Your task to perform on an android device: allow cookies in the chrome app Image 0: 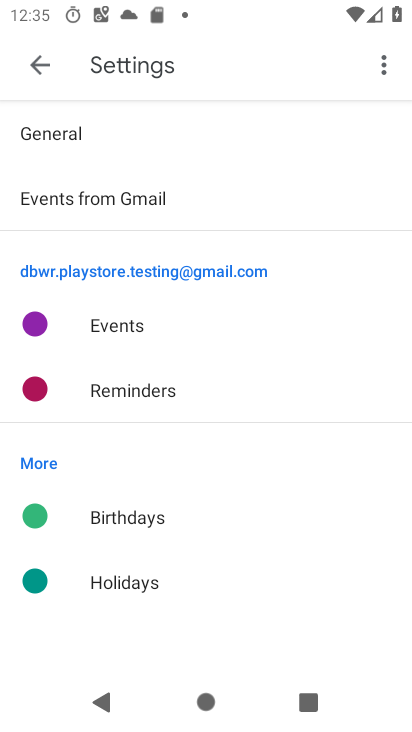
Step 0: press home button
Your task to perform on an android device: allow cookies in the chrome app Image 1: 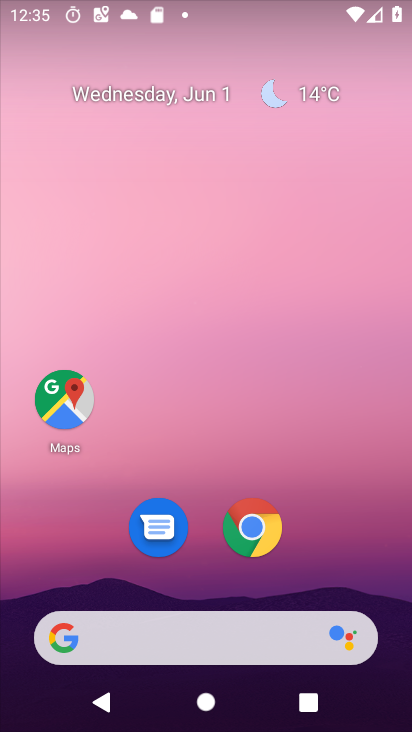
Step 1: click (253, 522)
Your task to perform on an android device: allow cookies in the chrome app Image 2: 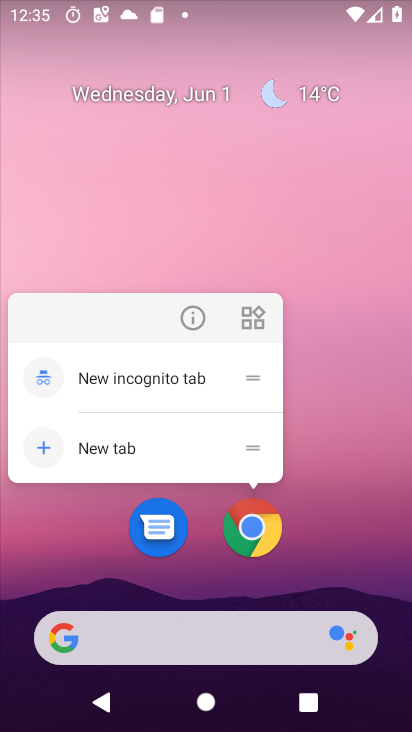
Step 2: click (252, 529)
Your task to perform on an android device: allow cookies in the chrome app Image 3: 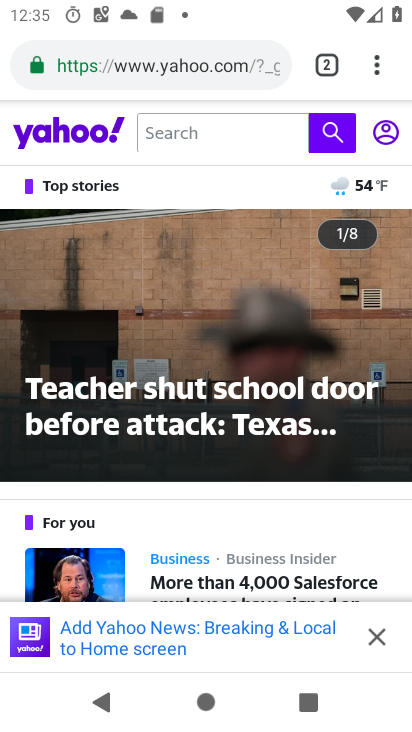
Step 3: click (380, 69)
Your task to perform on an android device: allow cookies in the chrome app Image 4: 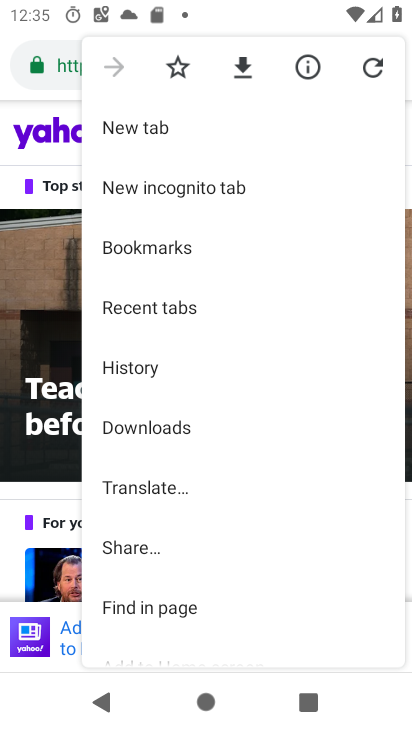
Step 4: drag from (225, 579) to (213, 260)
Your task to perform on an android device: allow cookies in the chrome app Image 5: 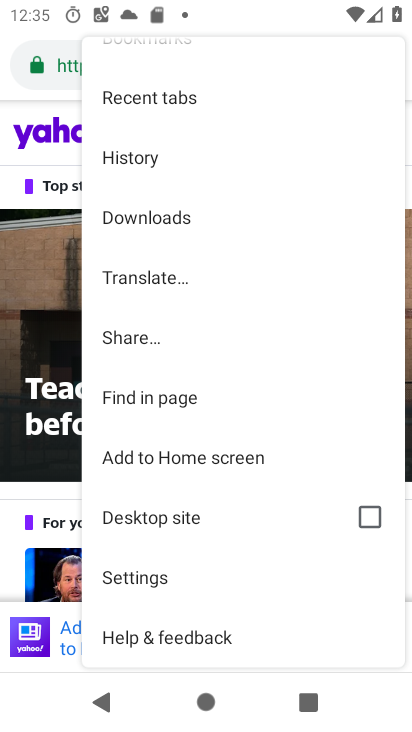
Step 5: click (137, 579)
Your task to perform on an android device: allow cookies in the chrome app Image 6: 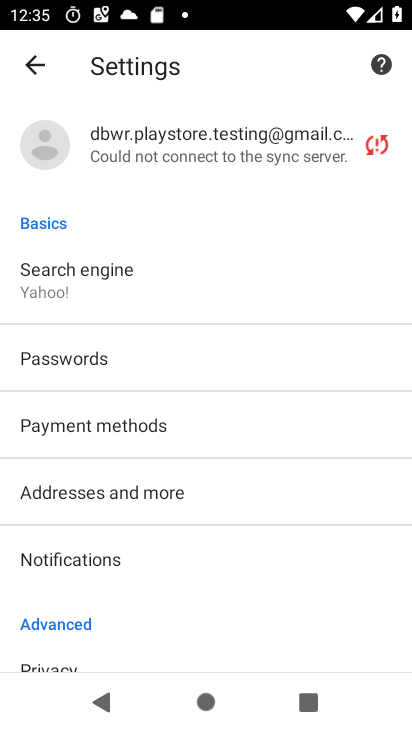
Step 6: drag from (179, 543) to (147, 165)
Your task to perform on an android device: allow cookies in the chrome app Image 7: 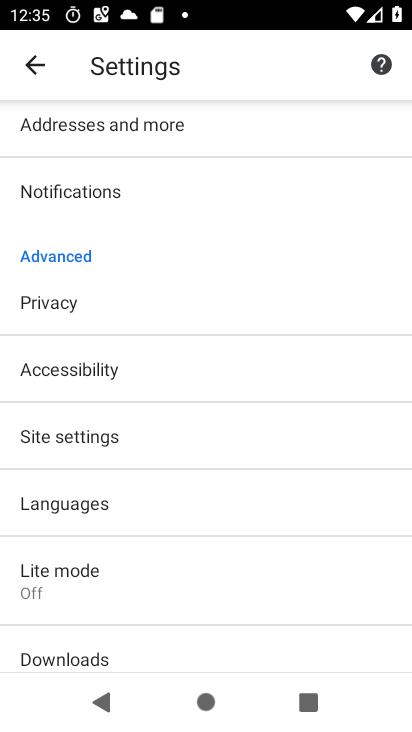
Step 7: click (46, 440)
Your task to perform on an android device: allow cookies in the chrome app Image 8: 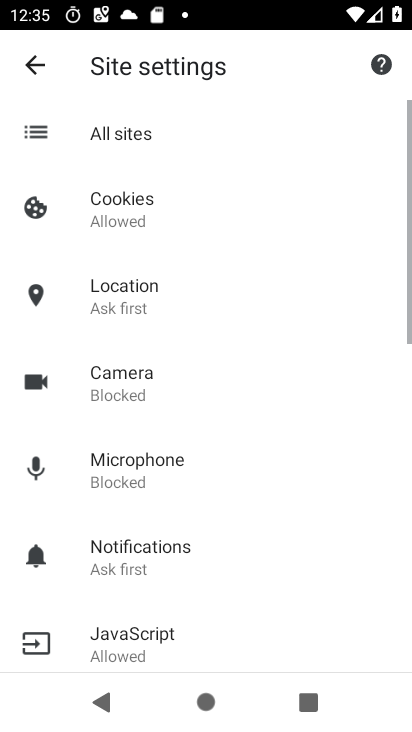
Step 8: click (114, 212)
Your task to perform on an android device: allow cookies in the chrome app Image 9: 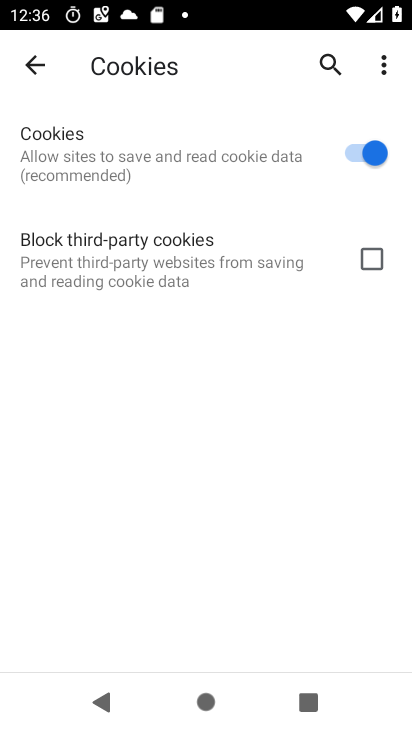
Step 9: task complete